Your task to perform on an android device: open app "ColorNote Notepad Notes" (install if not already installed) Image 0: 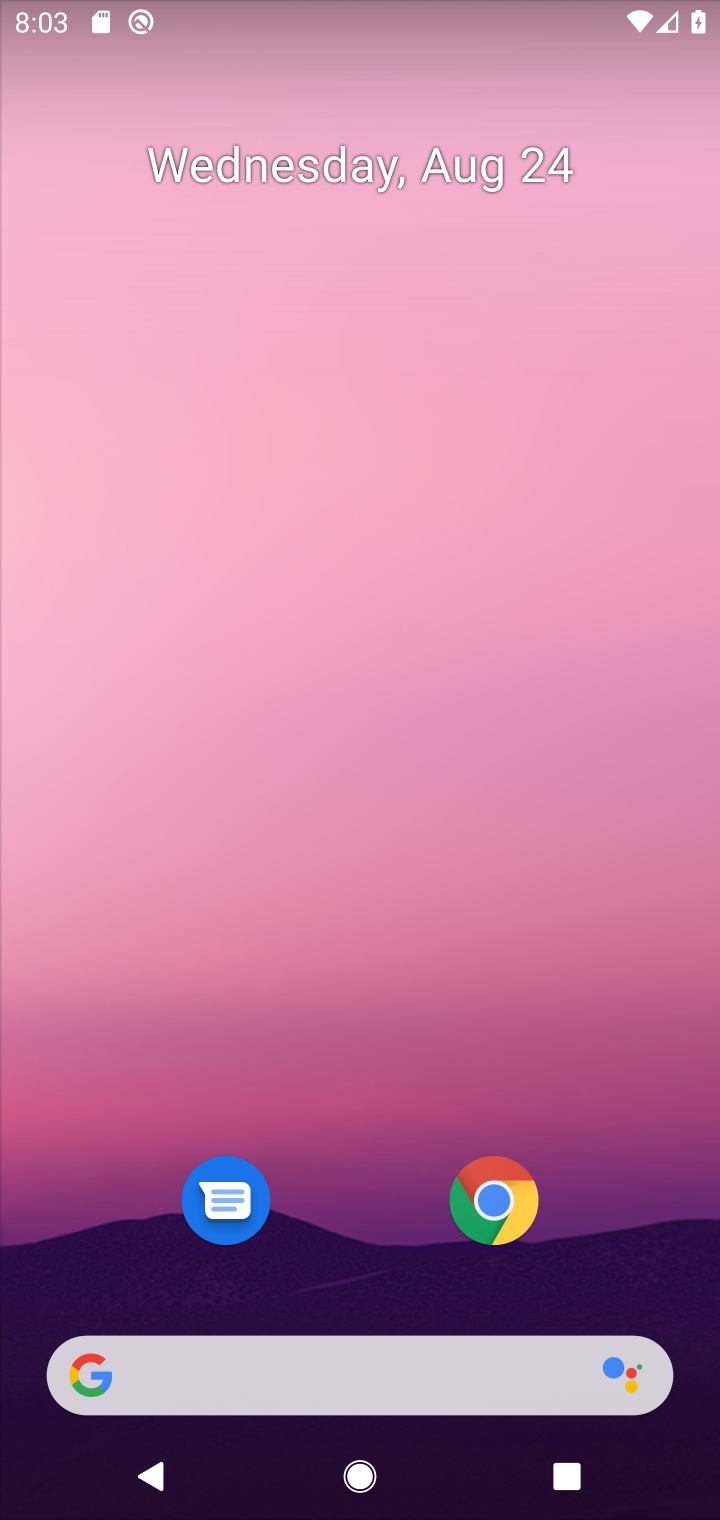
Step 0: drag from (319, 1158) to (307, 1)
Your task to perform on an android device: open app "ColorNote Notepad Notes" (install if not already installed) Image 1: 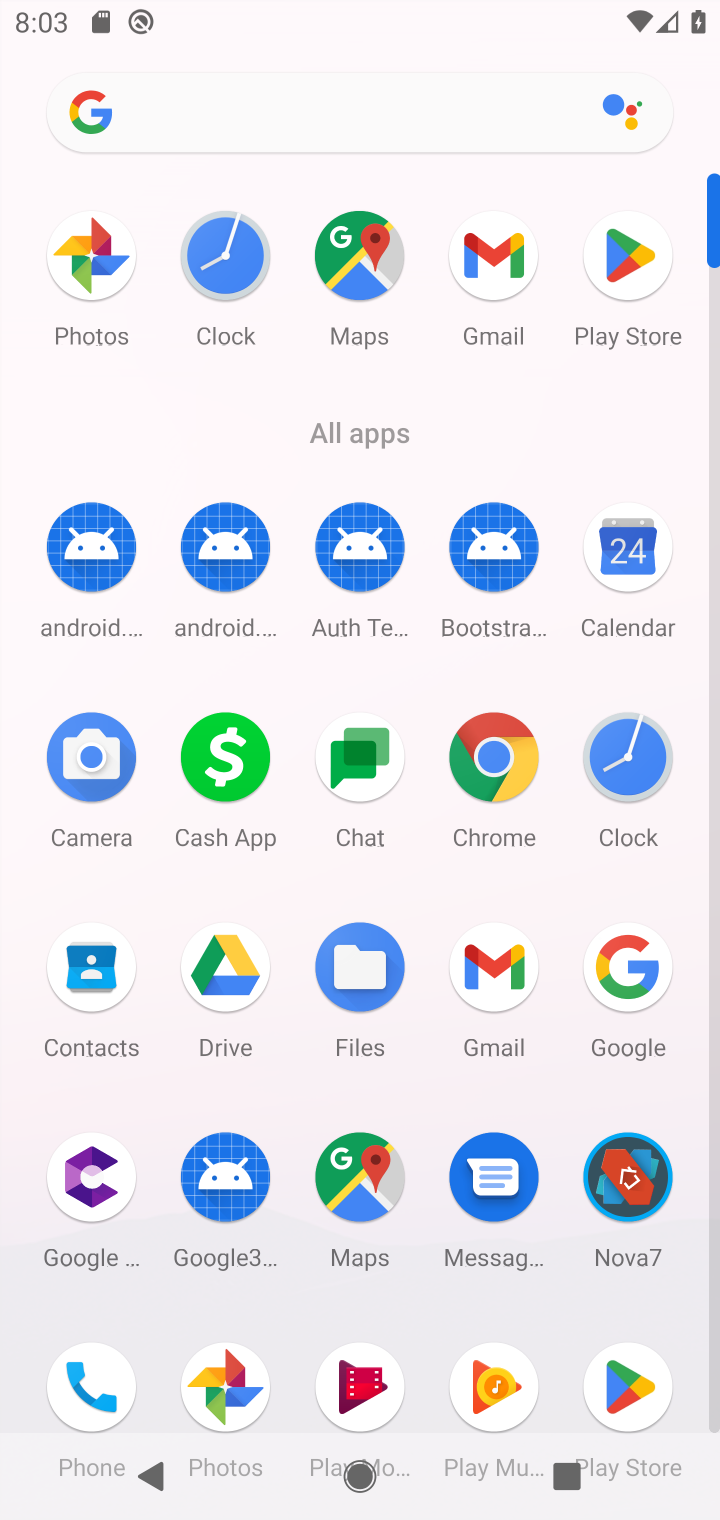
Step 1: click (643, 412)
Your task to perform on an android device: open app "ColorNote Notepad Notes" (install if not already installed) Image 2: 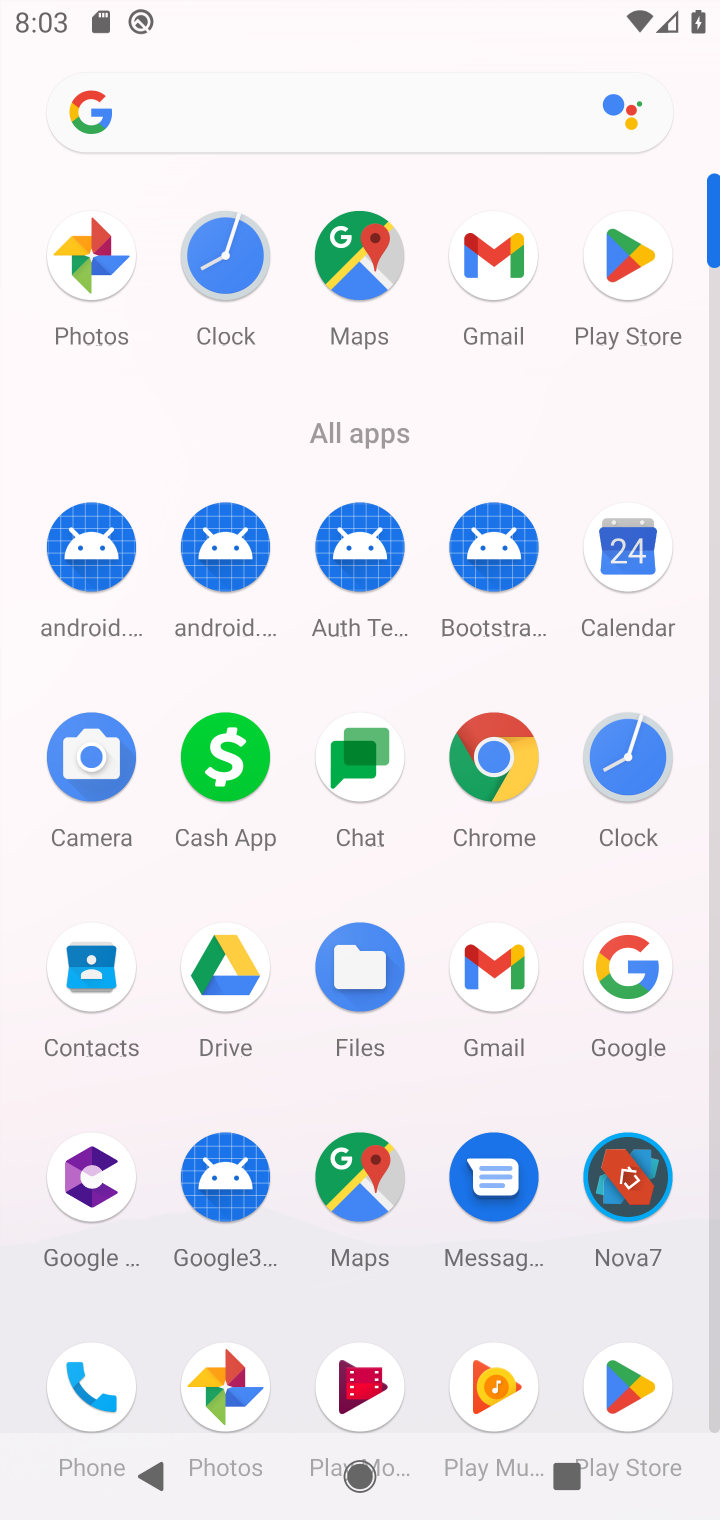
Step 2: click (607, 297)
Your task to perform on an android device: open app "ColorNote Notepad Notes" (install if not already installed) Image 3: 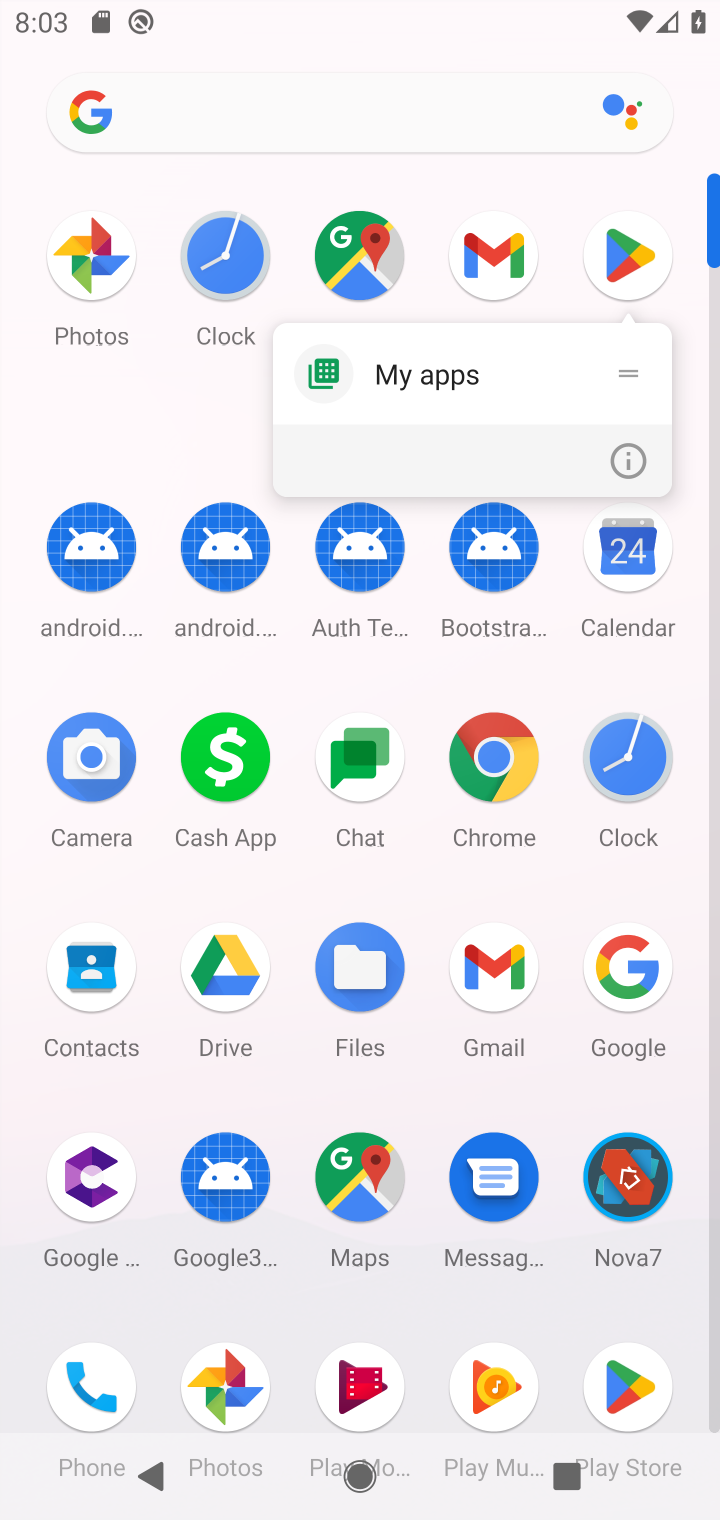
Step 3: click (614, 232)
Your task to perform on an android device: open app "ColorNote Notepad Notes" (install if not already installed) Image 4: 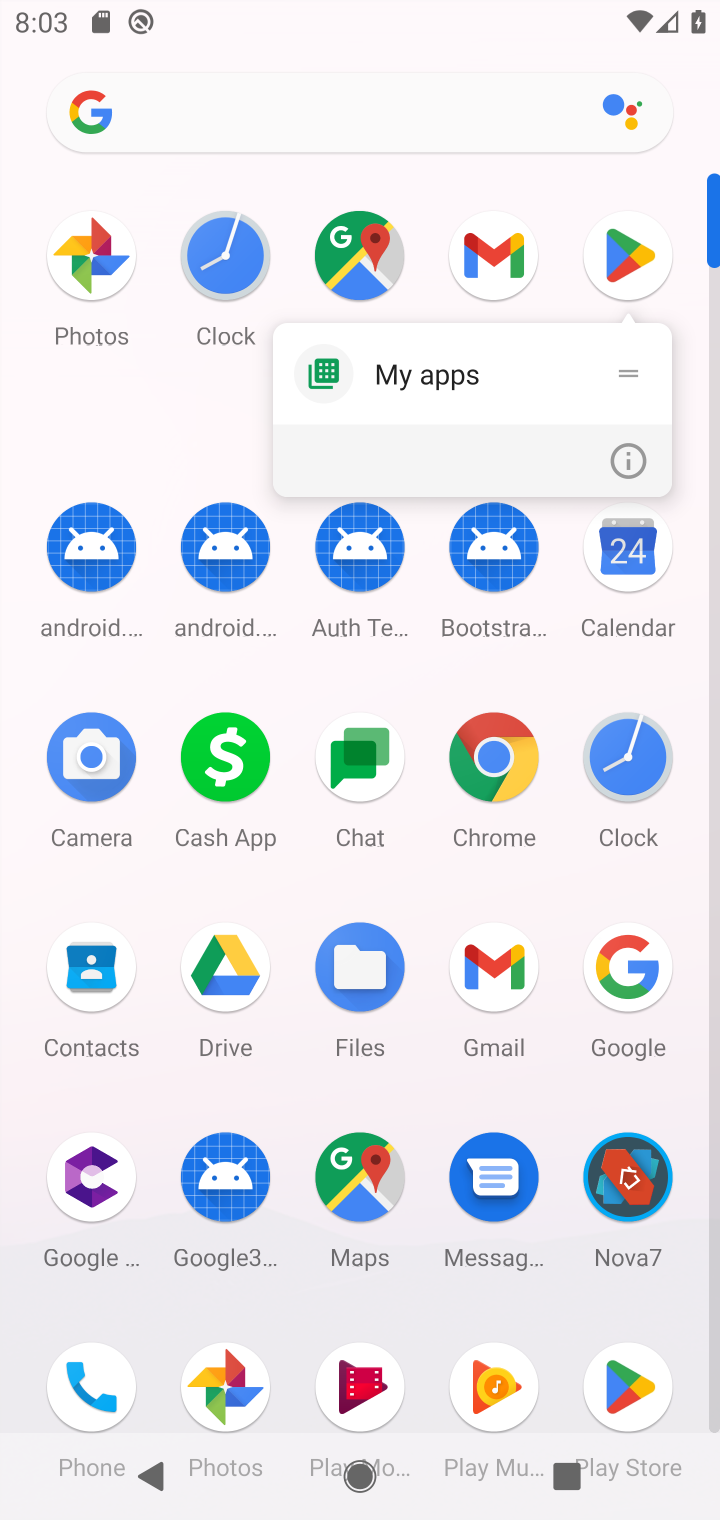
Step 4: click (614, 234)
Your task to perform on an android device: open app "ColorNote Notepad Notes" (install if not already installed) Image 5: 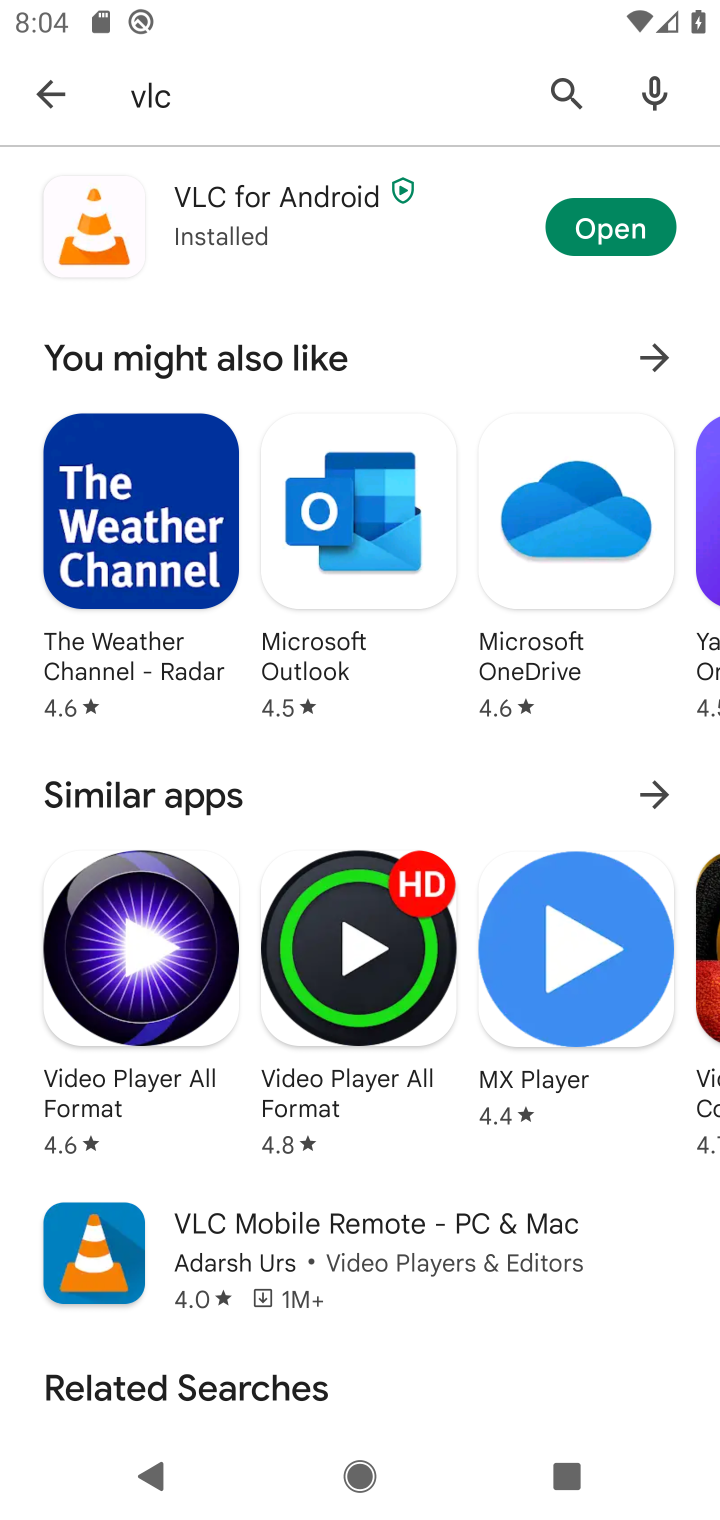
Step 5: click (230, 67)
Your task to perform on an android device: open app "ColorNote Notepad Notes" (install if not already installed) Image 6: 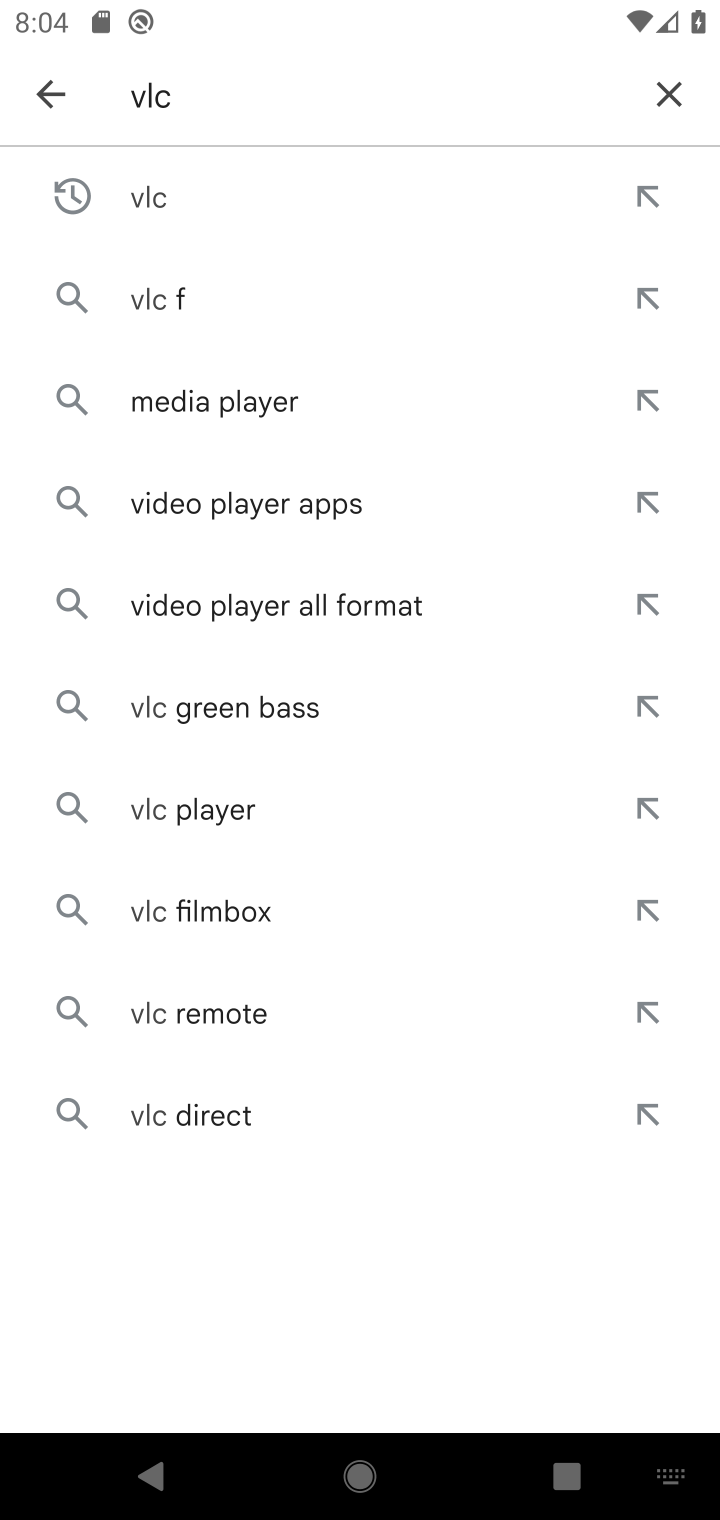
Step 6: click (657, 95)
Your task to perform on an android device: open app "ColorNote Notepad Notes" (install if not already installed) Image 7: 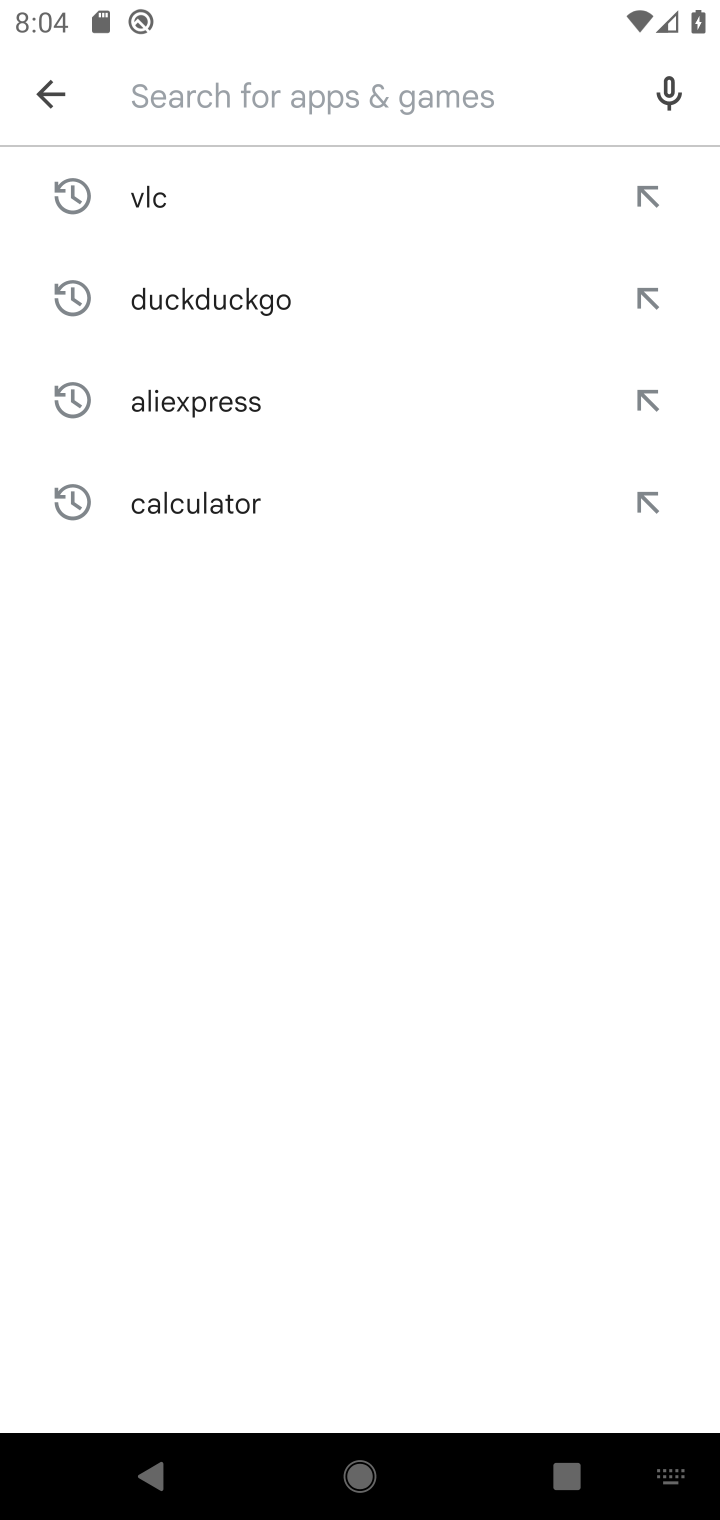
Step 7: type ""
Your task to perform on an android device: open app "ColorNote Notepad Notes" (install if not already installed) Image 8: 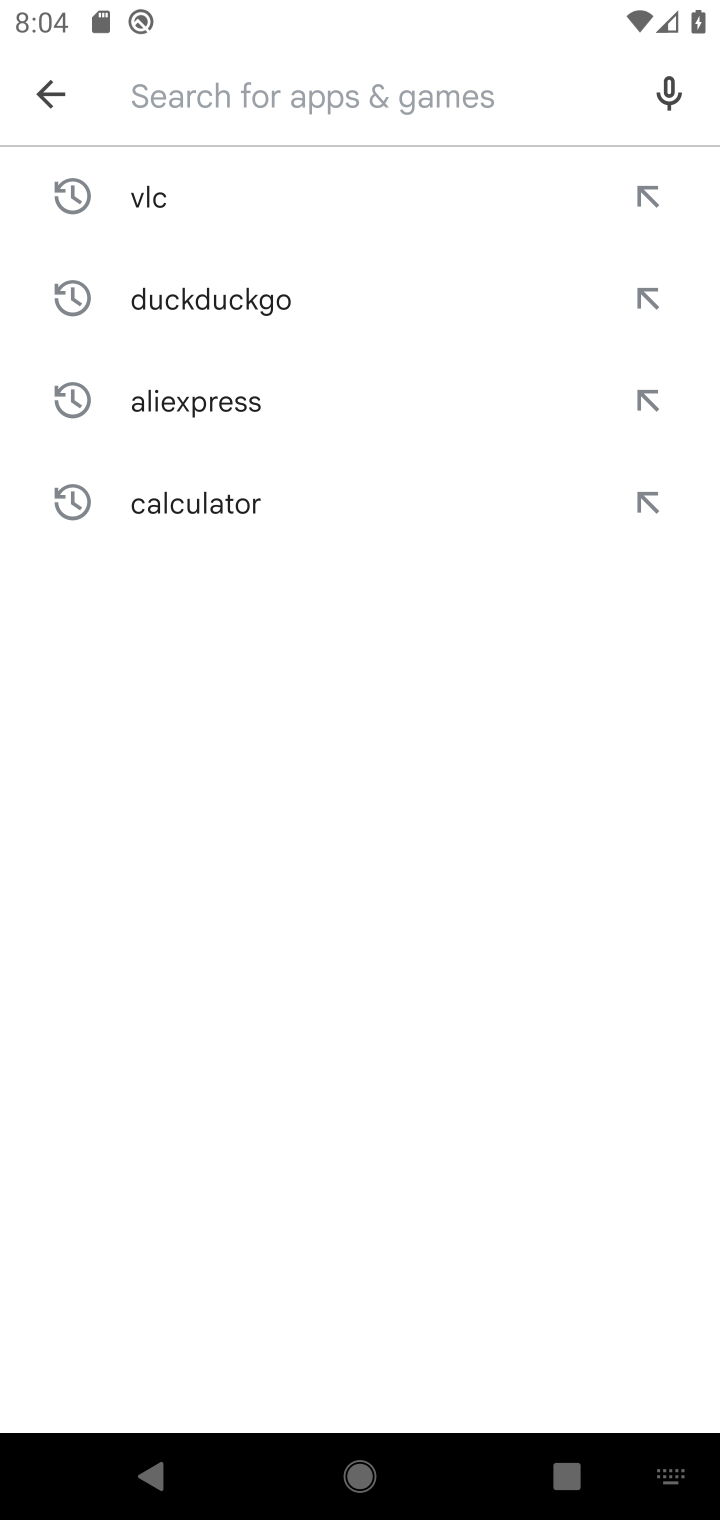
Step 8: type "colornotenotepad notes"
Your task to perform on an android device: open app "ColorNote Notepad Notes" (install if not already installed) Image 9: 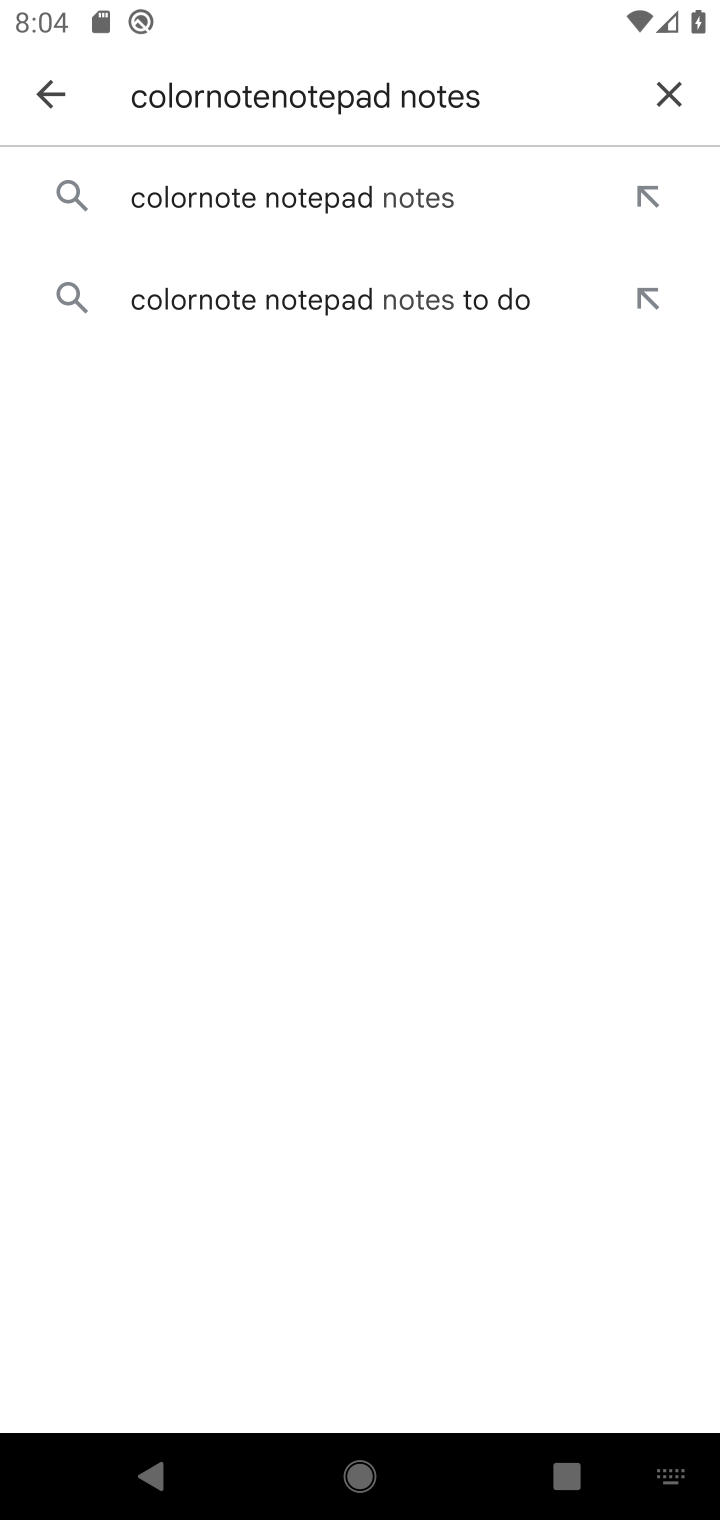
Step 9: click (332, 170)
Your task to perform on an android device: open app "ColorNote Notepad Notes" (install if not already installed) Image 10: 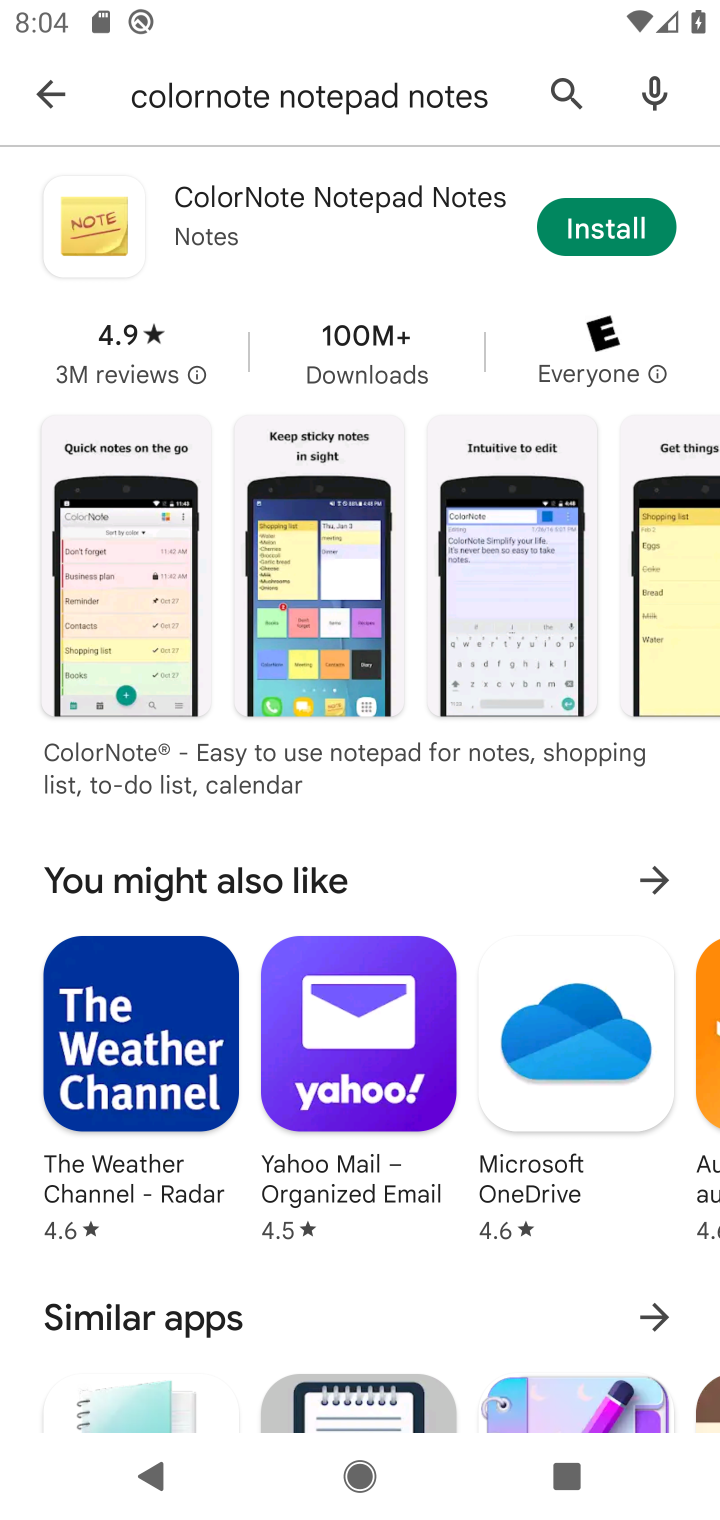
Step 10: click (617, 234)
Your task to perform on an android device: open app "ColorNote Notepad Notes" (install if not already installed) Image 11: 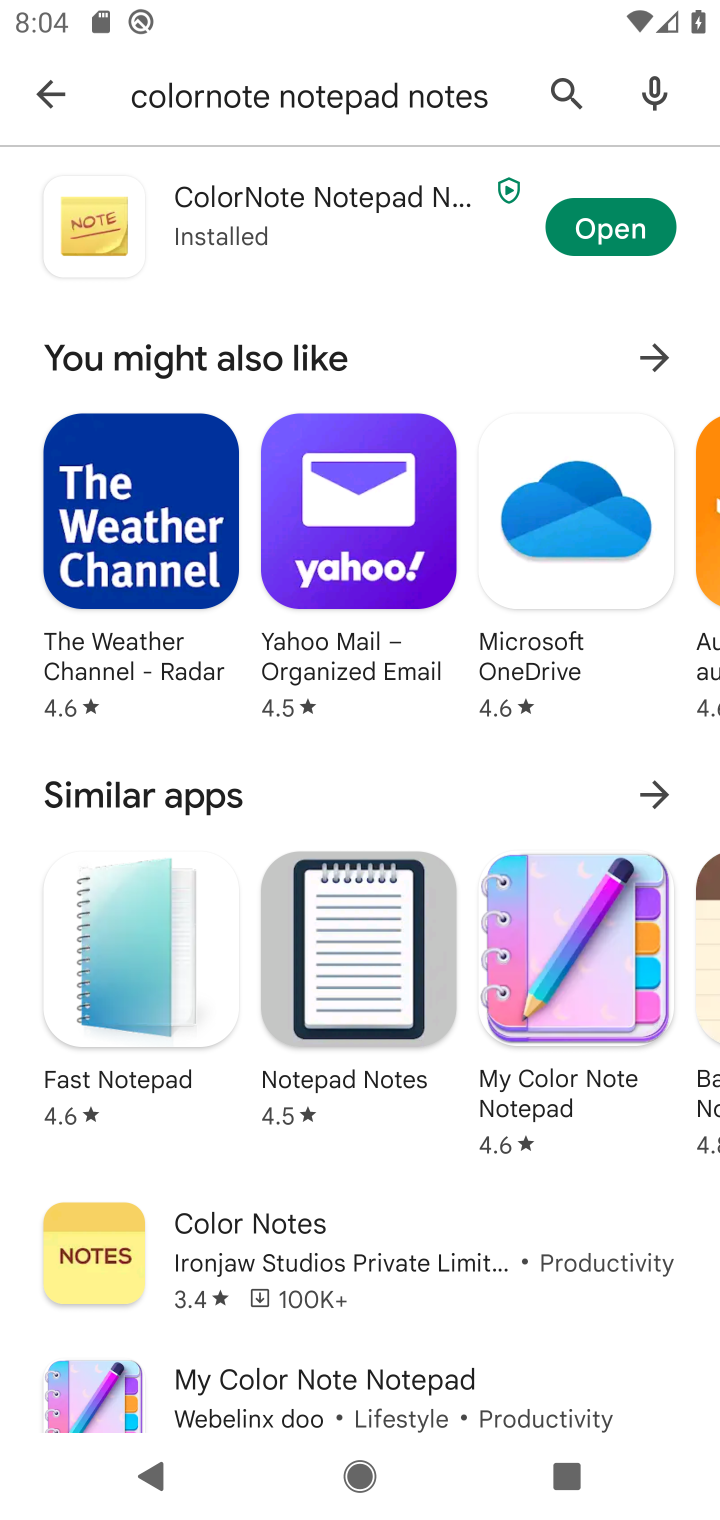
Step 11: click (655, 230)
Your task to perform on an android device: open app "ColorNote Notepad Notes" (install if not already installed) Image 12: 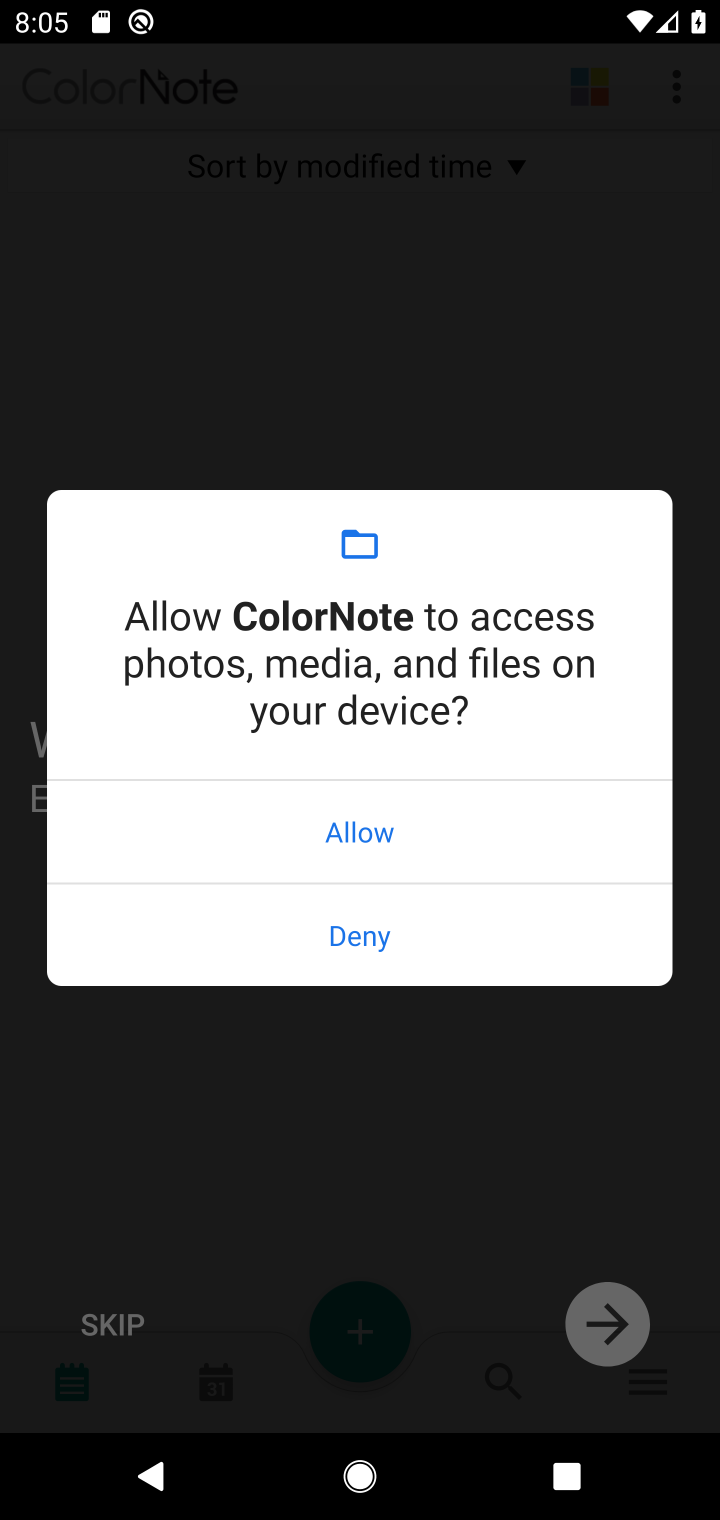
Step 12: click (414, 843)
Your task to perform on an android device: open app "ColorNote Notepad Notes" (install if not already installed) Image 13: 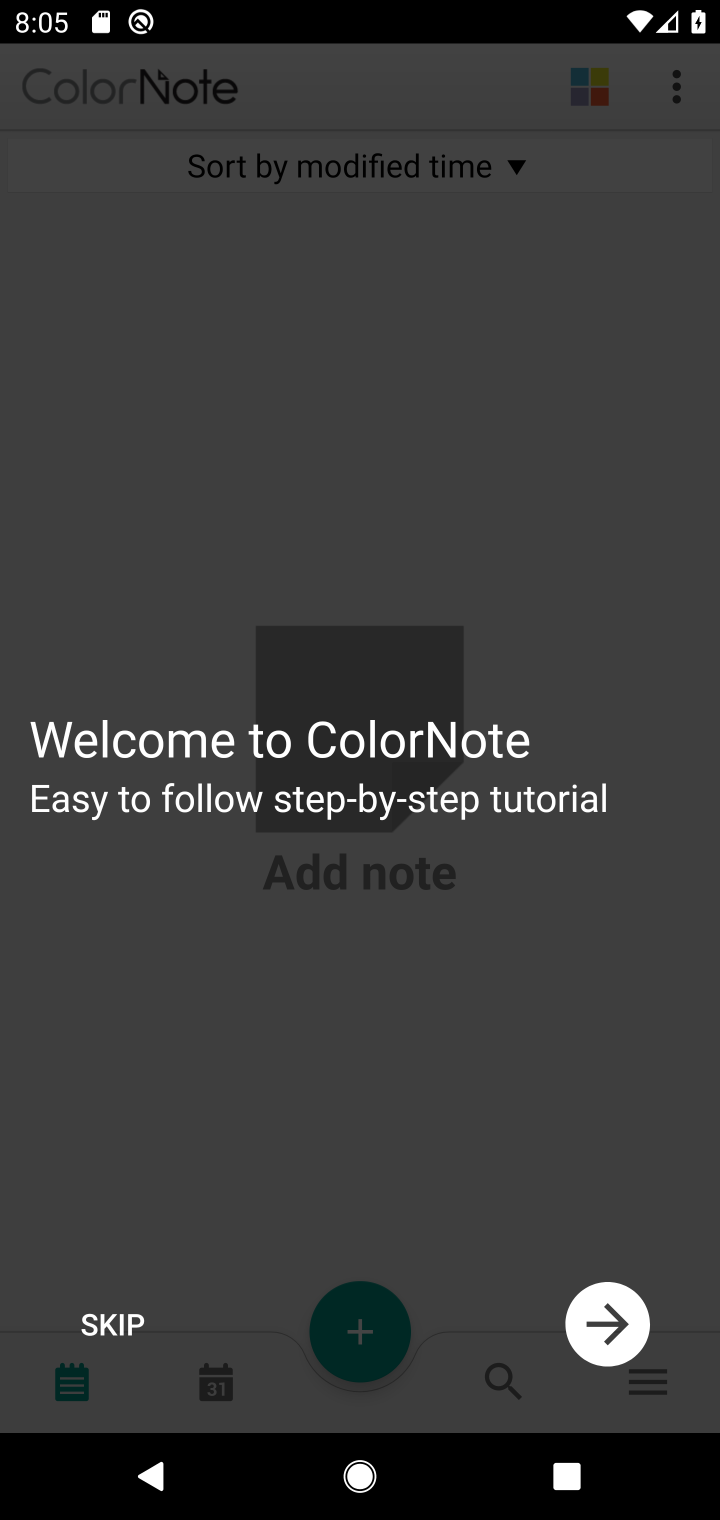
Step 13: click (632, 1315)
Your task to perform on an android device: open app "ColorNote Notepad Notes" (install if not already installed) Image 14: 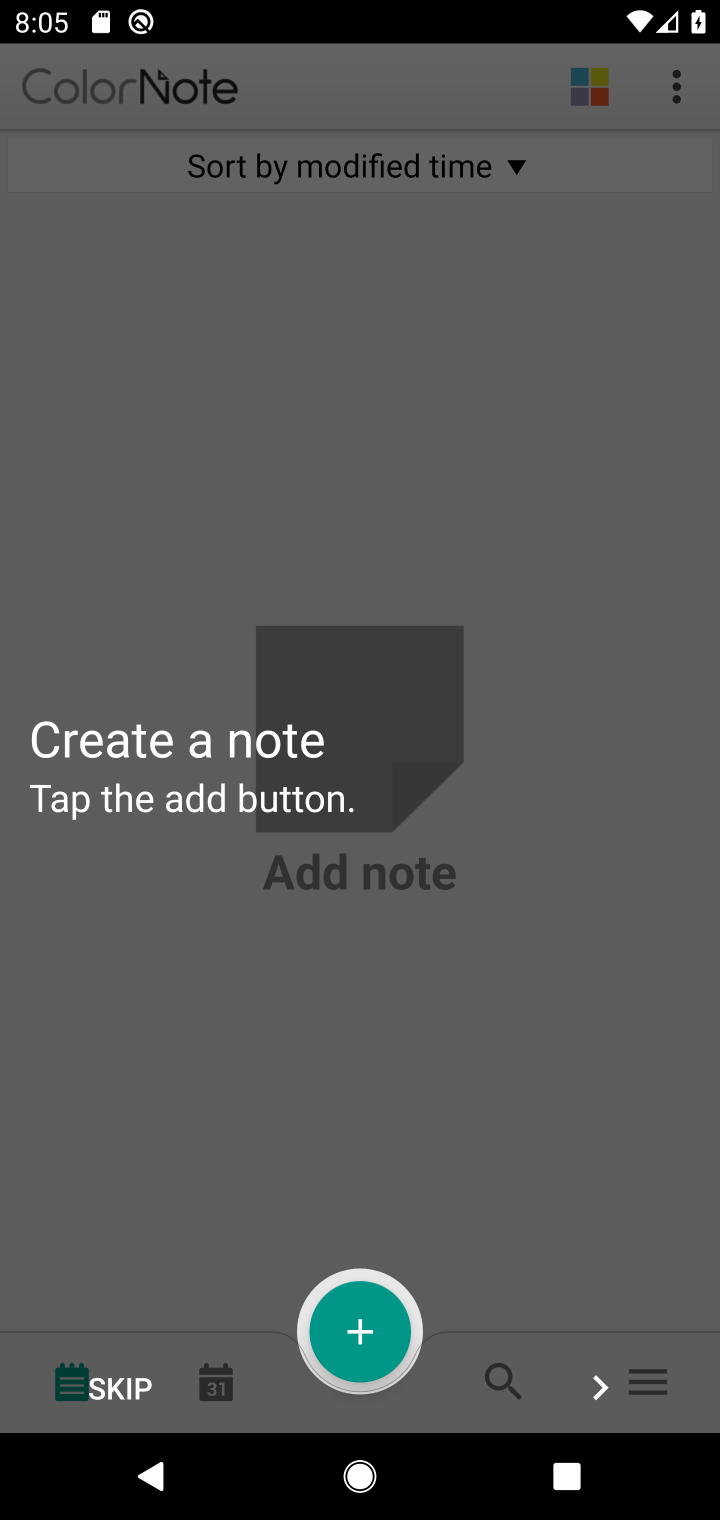
Step 14: click (604, 1386)
Your task to perform on an android device: open app "ColorNote Notepad Notes" (install if not already installed) Image 15: 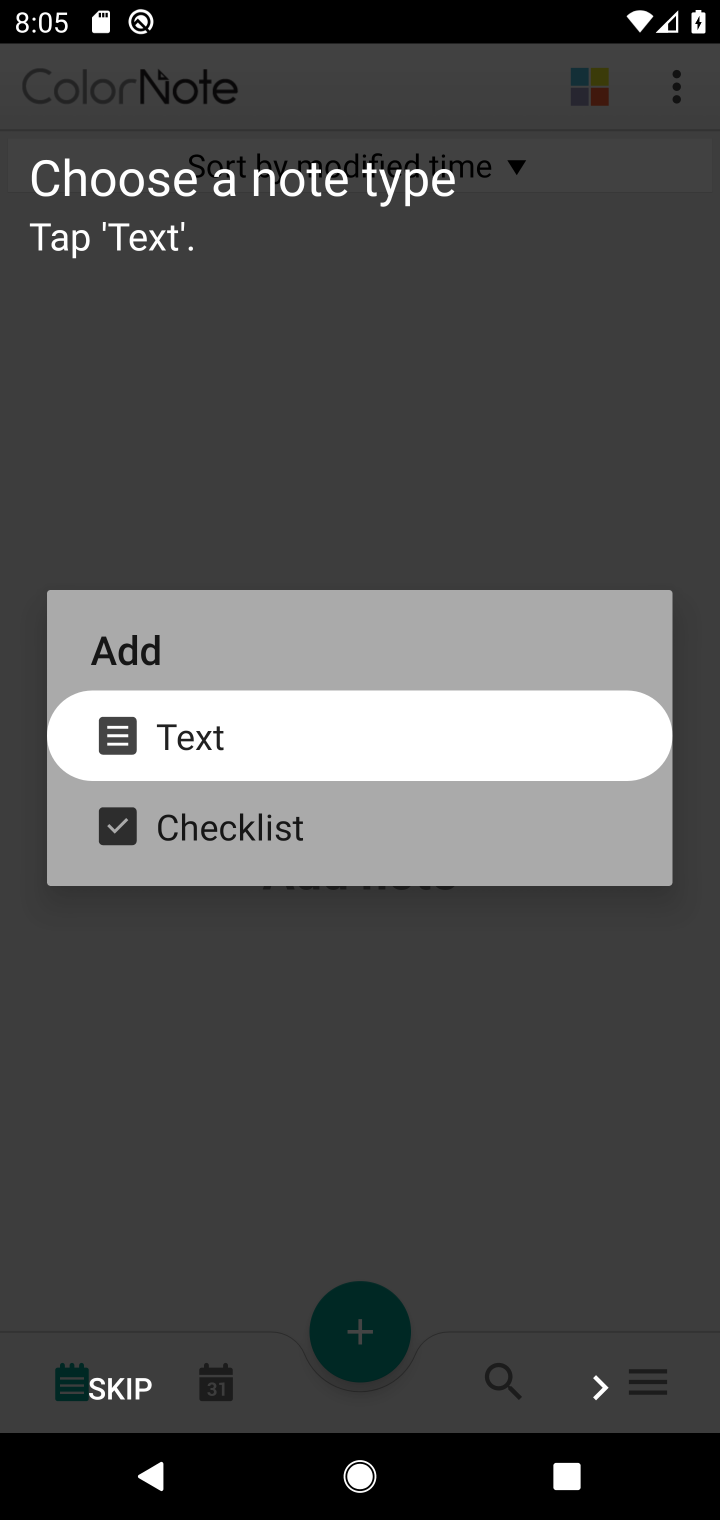
Step 15: click (236, 846)
Your task to perform on an android device: open app "ColorNote Notepad Notes" (install if not already installed) Image 16: 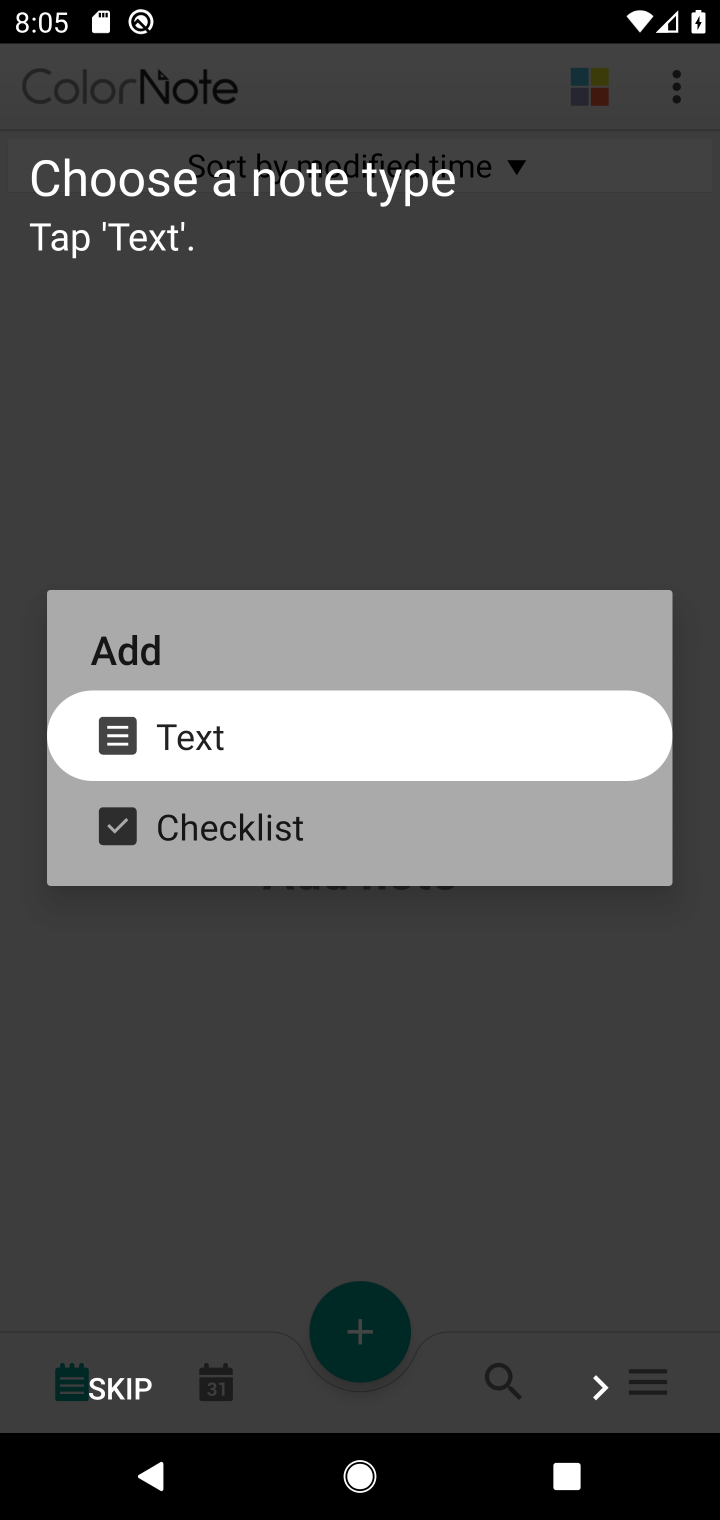
Step 16: click (346, 419)
Your task to perform on an android device: open app "ColorNote Notepad Notes" (install if not already installed) Image 17: 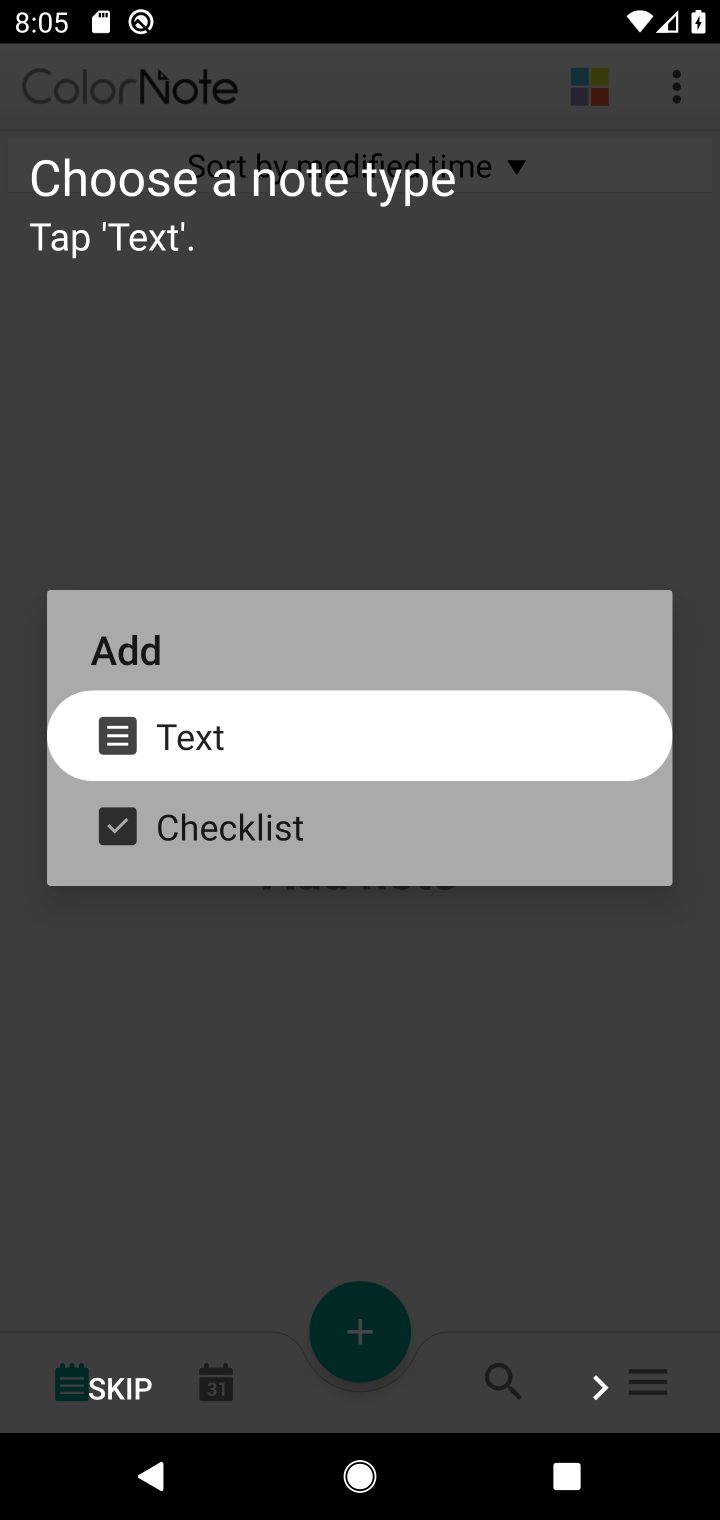
Step 17: click (593, 1395)
Your task to perform on an android device: open app "ColorNote Notepad Notes" (install if not already installed) Image 18: 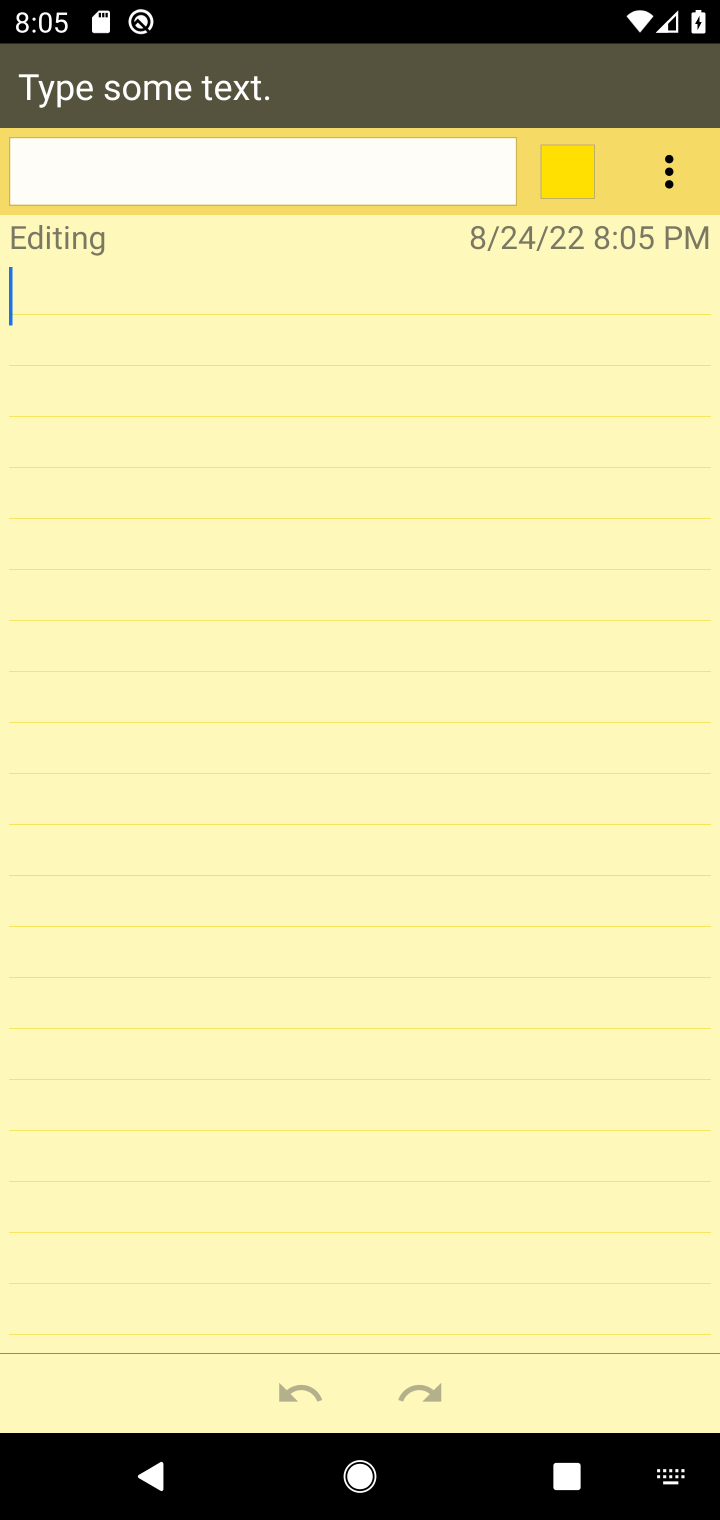
Step 18: task complete